Your task to perform on an android device: Open wifi settings Image 0: 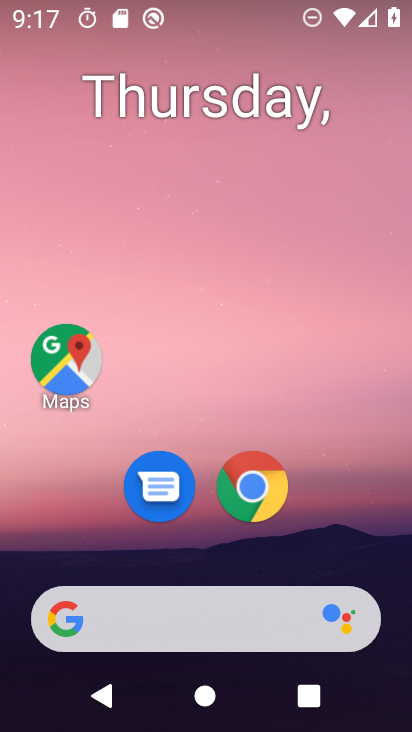
Step 0: drag from (82, 16) to (147, 438)
Your task to perform on an android device: Open wifi settings Image 1: 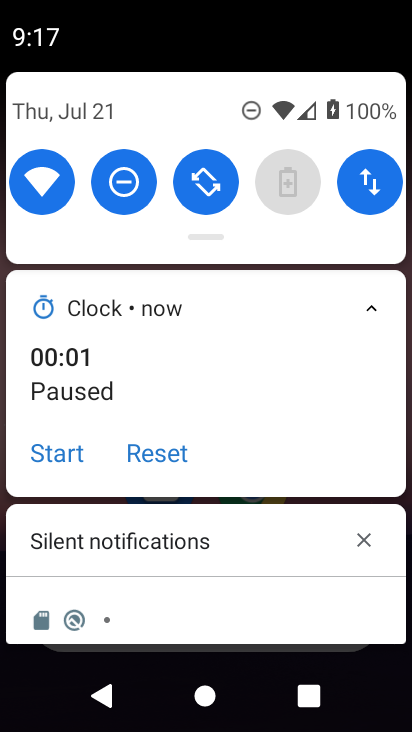
Step 1: click (51, 185)
Your task to perform on an android device: Open wifi settings Image 2: 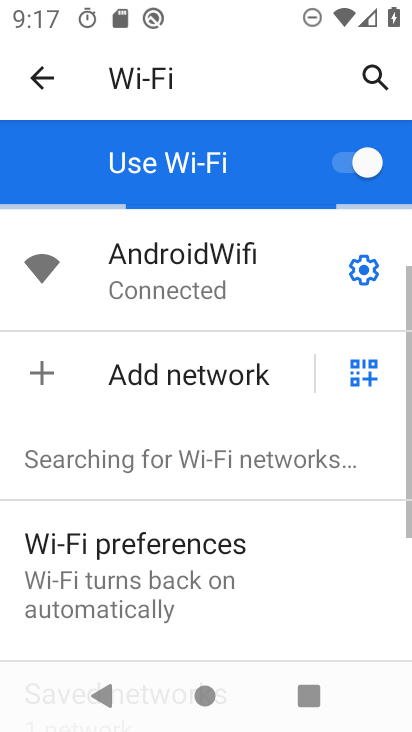
Step 2: task complete